Your task to perform on an android device: Search for Mexican restaurants on Maps Image 0: 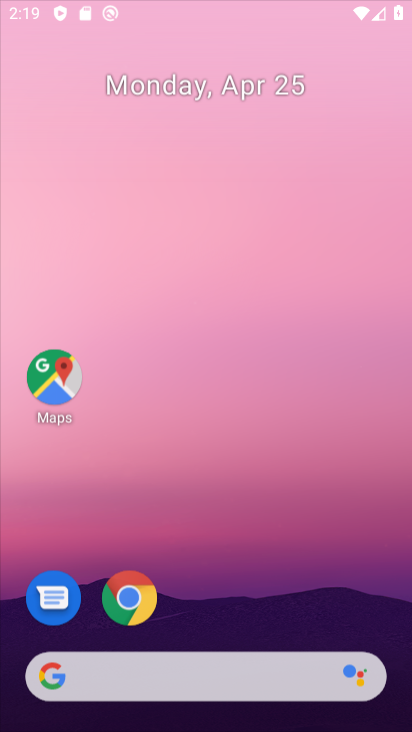
Step 0: drag from (352, 368) to (347, 111)
Your task to perform on an android device: Search for Mexican restaurants on Maps Image 1: 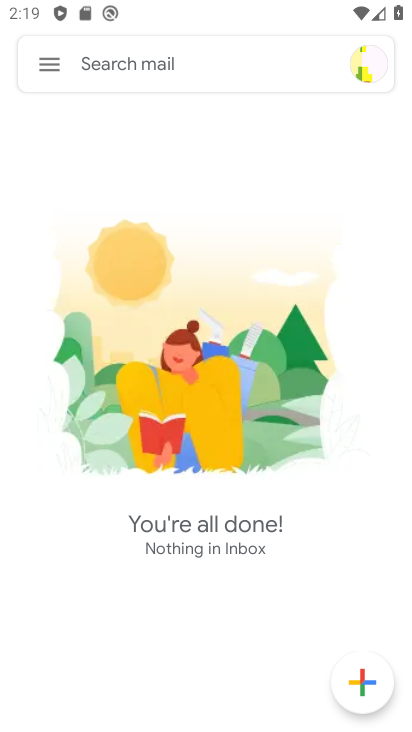
Step 1: press home button
Your task to perform on an android device: Search for Mexican restaurants on Maps Image 2: 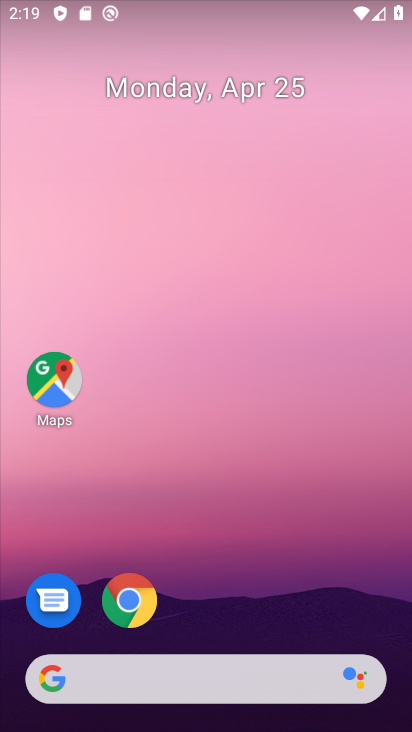
Step 2: drag from (342, 581) to (350, 139)
Your task to perform on an android device: Search for Mexican restaurants on Maps Image 3: 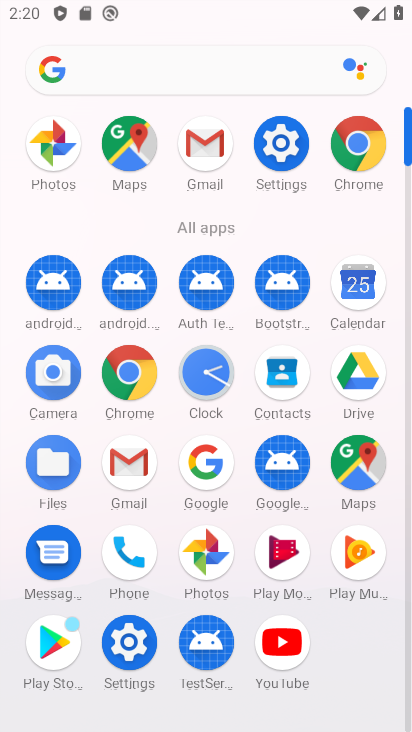
Step 3: click (344, 458)
Your task to perform on an android device: Search for Mexican restaurants on Maps Image 4: 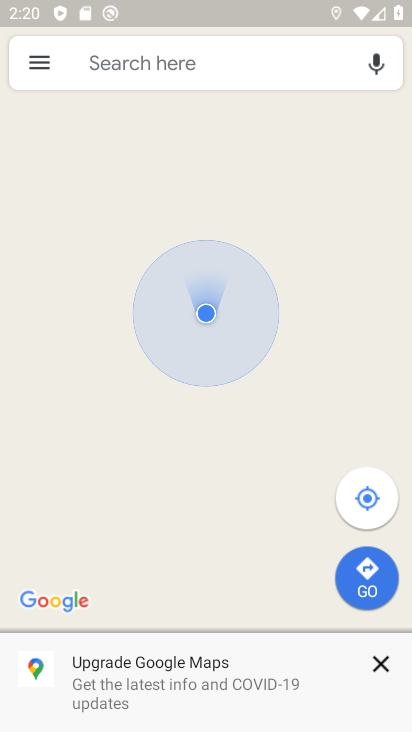
Step 4: click (194, 70)
Your task to perform on an android device: Search for Mexican restaurants on Maps Image 5: 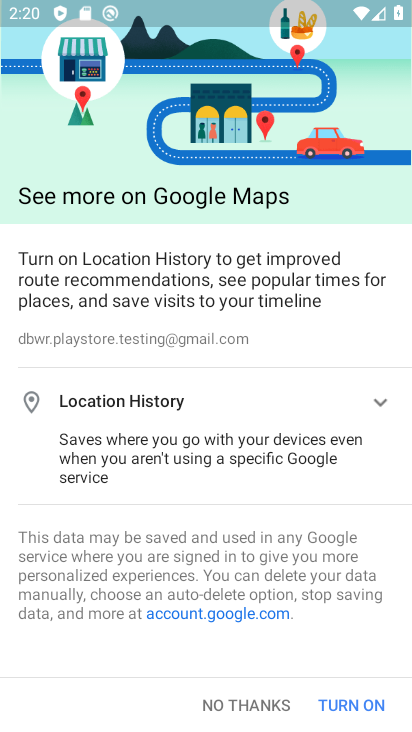
Step 5: click (265, 710)
Your task to perform on an android device: Search for Mexican restaurants on Maps Image 6: 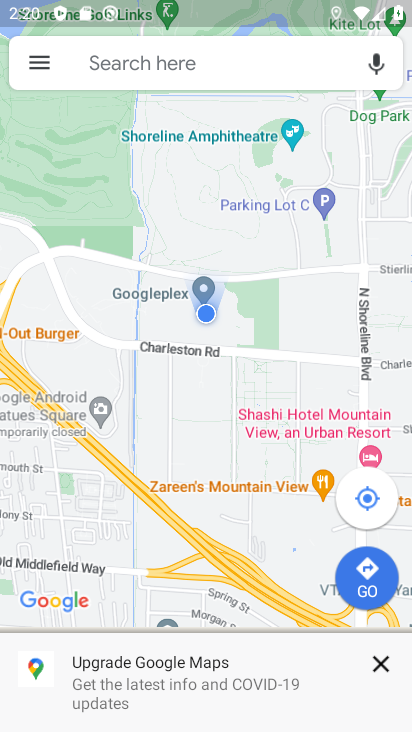
Step 6: click (190, 63)
Your task to perform on an android device: Search for Mexican restaurants on Maps Image 7: 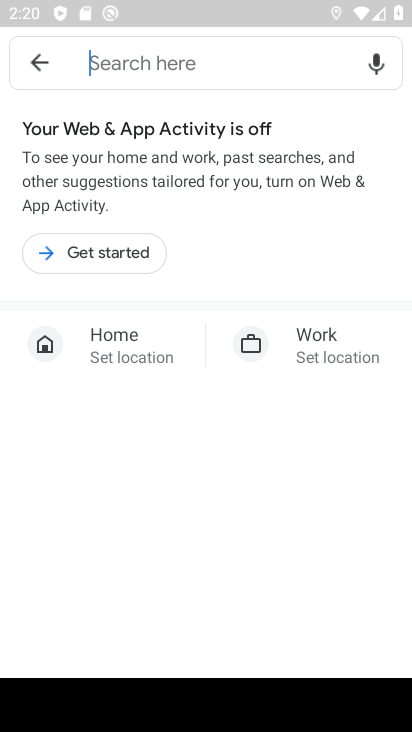
Step 7: type "mexican restaurants"
Your task to perform on an android device: Search for Mexican restaurants on Maps Image 8: 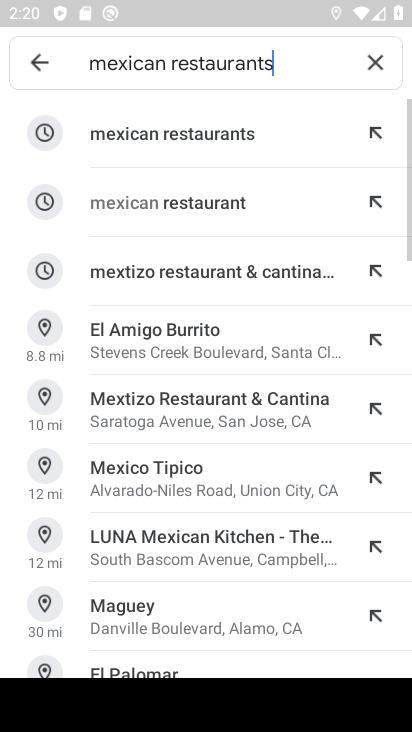
Step 8: click (156, 114)
Your task to perform on an android device: Search for Mexican restaurants on Maps Image 9: 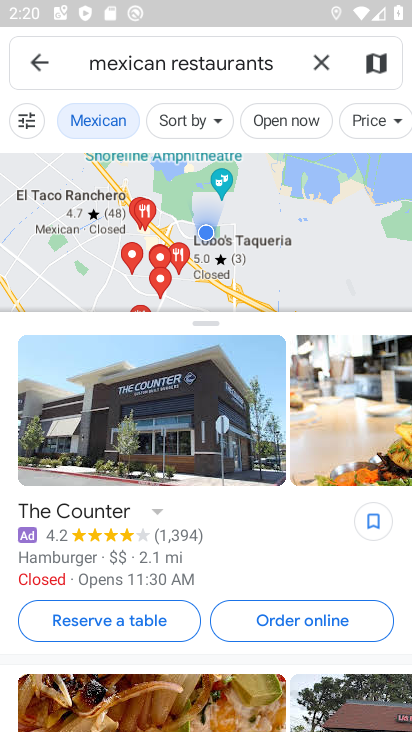
Step 9: task complete